Your task to perform on an android device: Open Android settings Image 0: 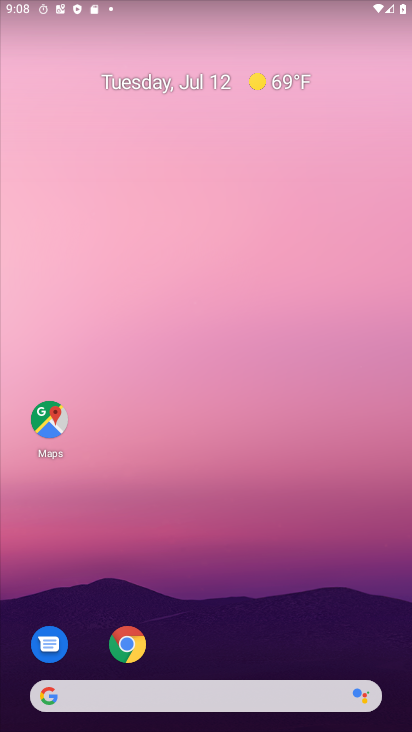
Step 0: drag from (223, 658) to (152, 12)
Your task to perform on an android device: Open Android settings Image 1: 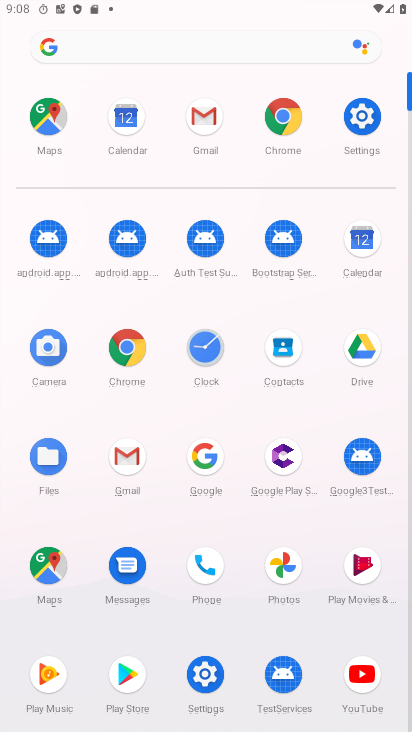
Step 1: click (363, 111)
Your task to perform on an android device: Open Android settings Image 2: 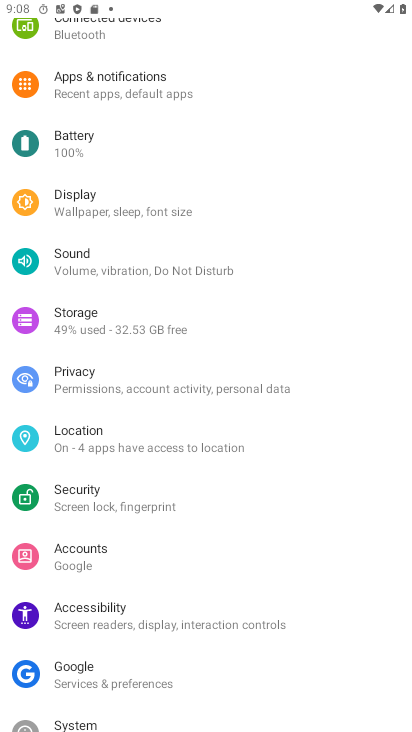
Step 2: drag from (166, 677) to (174, 23)
Your task to perform on an android device: Open Android settings Image 3: 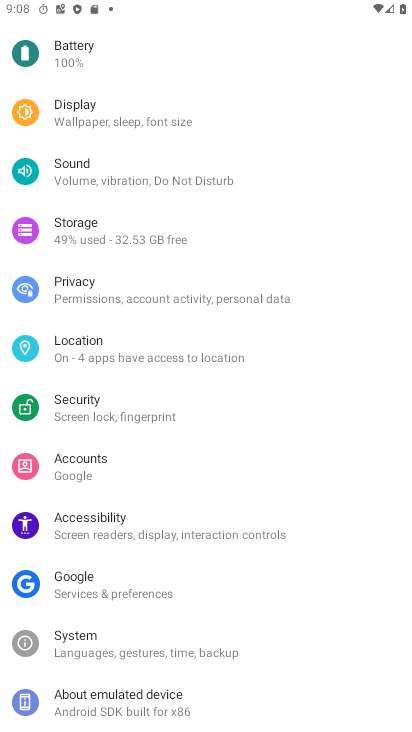
Step 3: click (142, 698)
Your task to perform on an android device: Open Android settings Image 4: 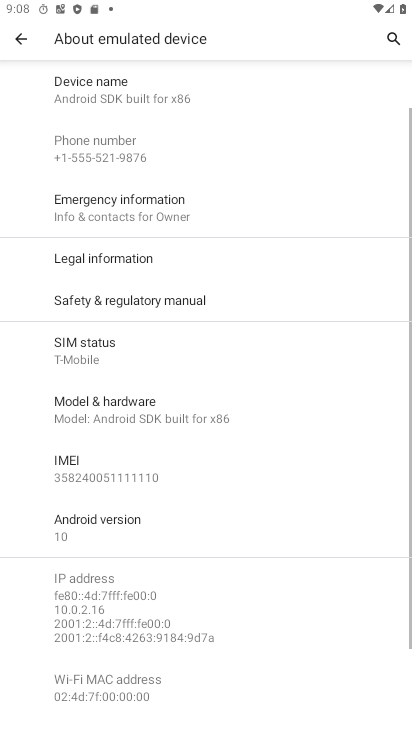
Step 4: click (64, 521)
Your task to perform on an android device: Open Android settings Image 5: 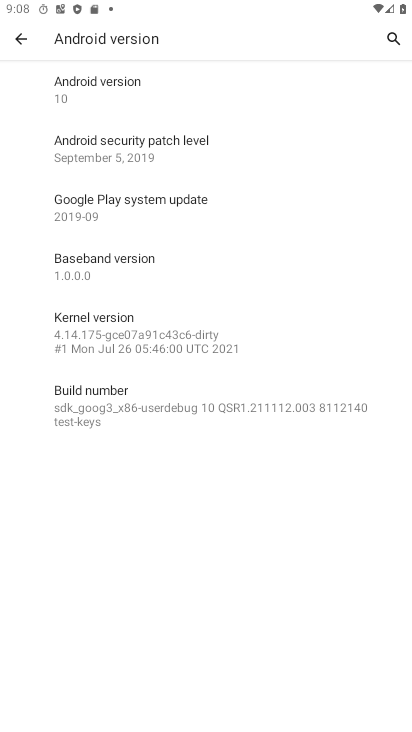
Step 5: task complete